Your task to perform on an android device: Open calendar and show me the second week of next month Image 0: 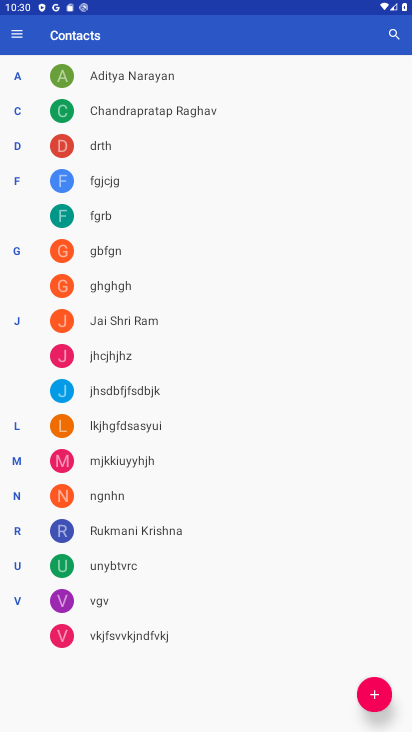
Step 0: press home button
Your task to perform on an android device: Open calendar and show me the second week of next month Image 1: 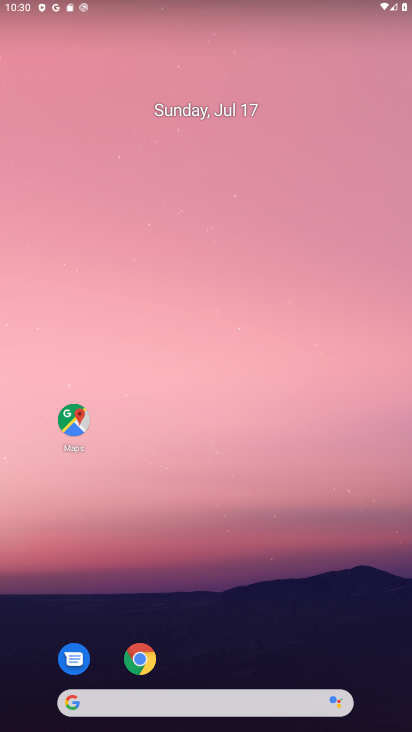
Step 1: drag from (255, 648) to (298, 155)
Your task to perform on an android device: Open calendar and show me the second week of next month Image 2: 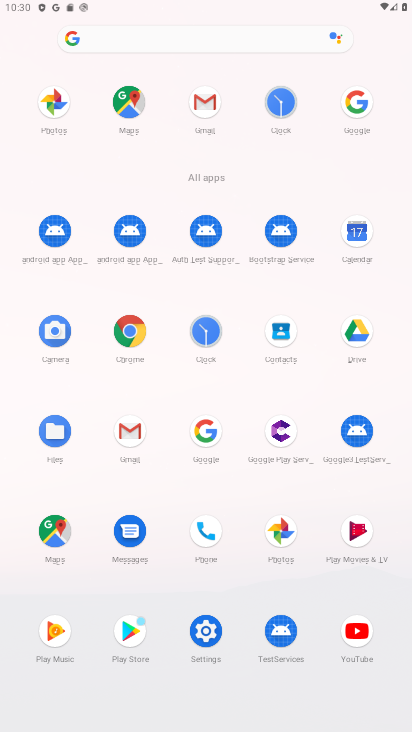
Step 2: click (339, 222)
Your task to perform on an android device: Open calendar and show me the second week of next month Image 3: 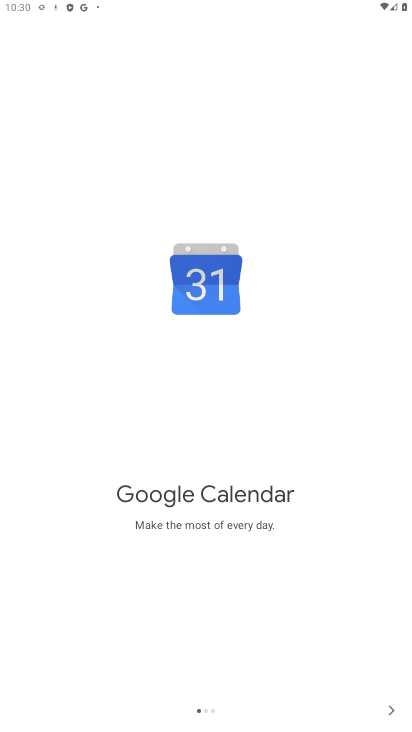
Step 3: click (395, 706)
Your task to perform on an android device: Open calendar and show me the second week of next month Image 4: 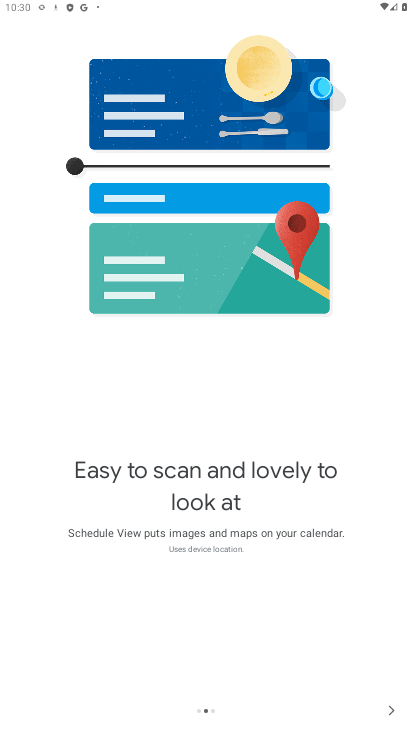
Step 4: click (395, 706)
Your task to perform on an android device: Open calendar and show me the second week of next month Image 5: 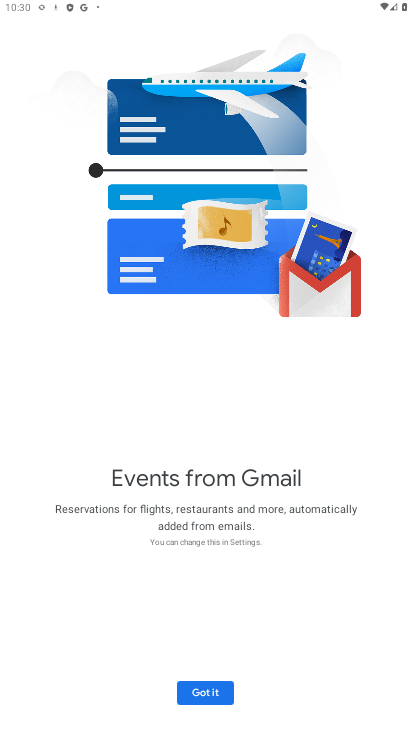
Step 5: click (213, 691)
Your task to perform on an android device: Open calendar and show me the second week of next month Image 6: 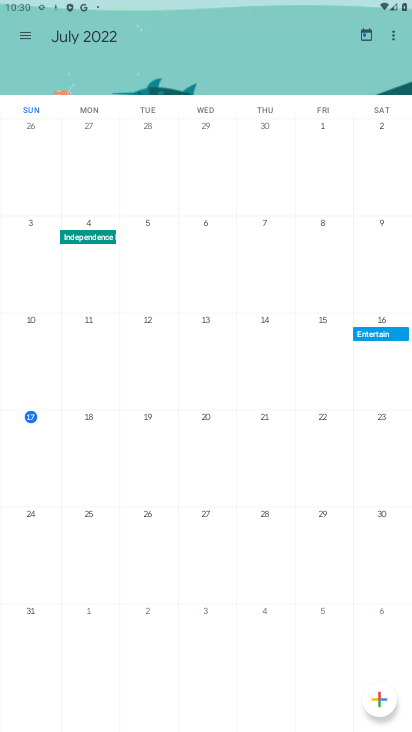
Step 6: click (83, 44)
Your task to perform on an android device: Open calendar and show me the second week of next month Image 7: 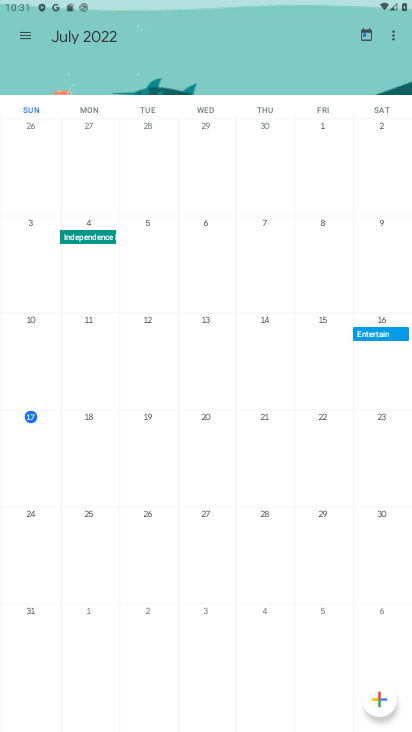
Step 7: click (25, 36)
Your task to perform on an android device: Open calendar and show me the second week of next month Image 8: 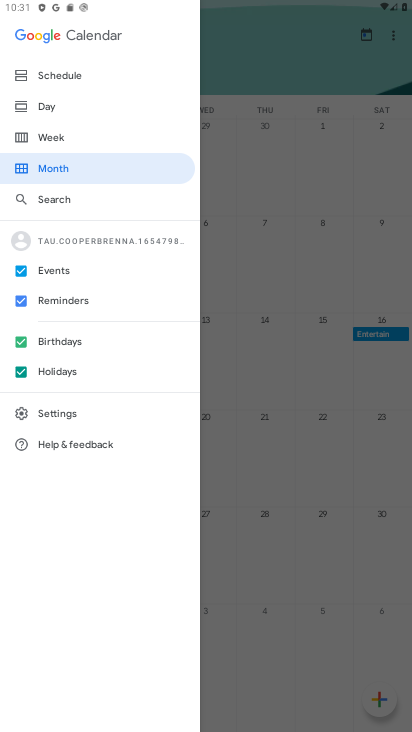
Step 8: click (304, 71)
Your task to perform on an android device: Open calendar and show me the second week of next month Image 9: 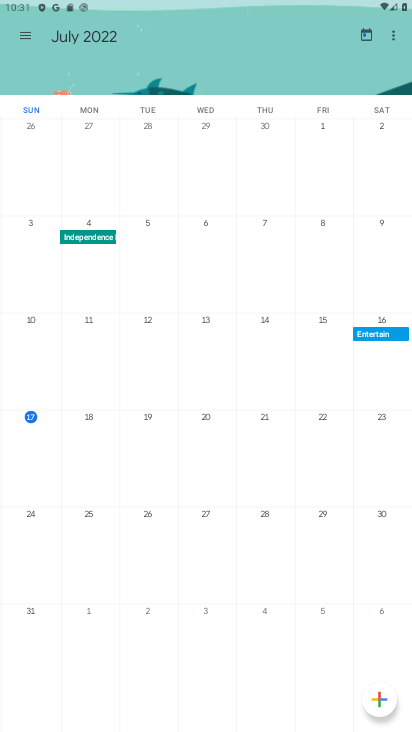
Step 9: click (111, 32)
Your task to perform on an android device: Open calendar and show me the second week of next month Image 10: 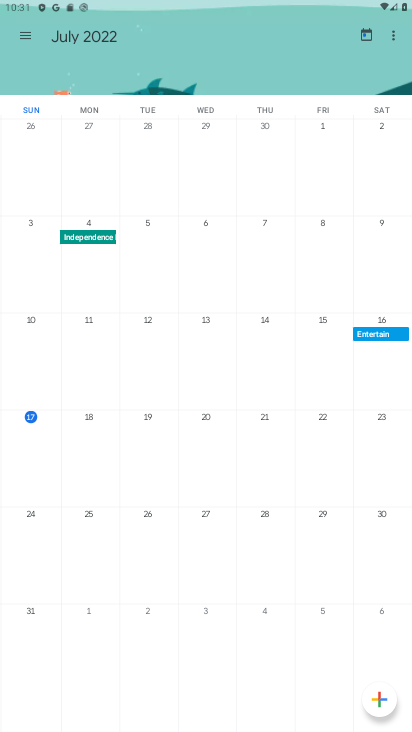
Step 10: click (123, 41)
Your task to perform on an android device: Open calendar and show me the second week of next month Image 11: 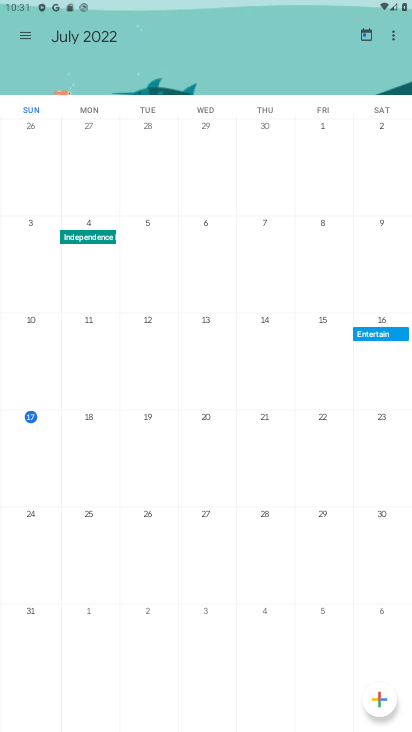
Step 11: click (81, 46)
Your task to perform on an android device: Open calendar and show me the second week of next month Image 12: 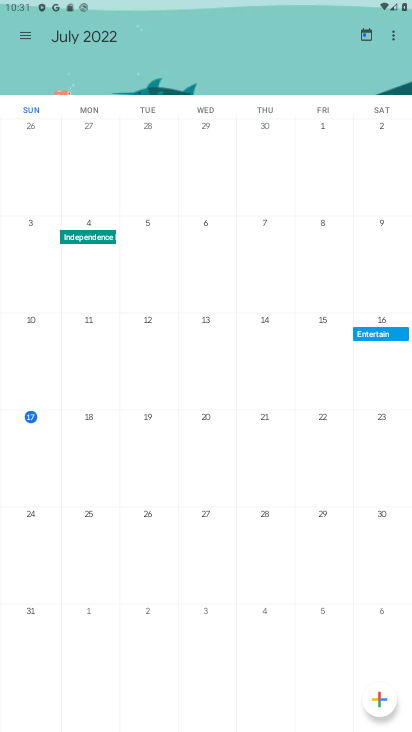
Step 12: click (81, 46)
Your task to perform on an android device: Open calendar and show me the second week of next month Image 13: 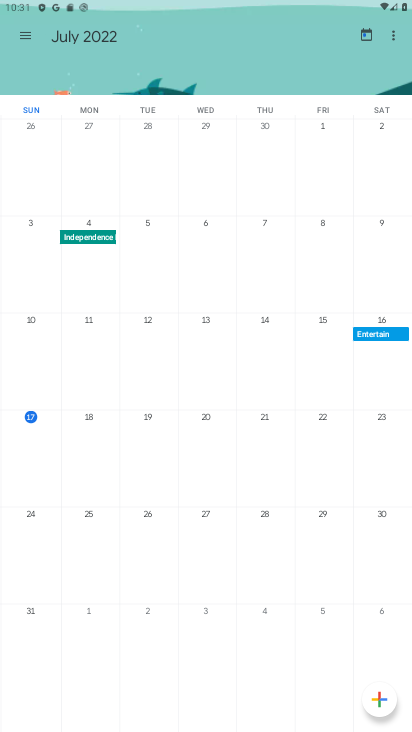
Step 13: click (103, 43)
Your task to perform on an android device: Open calendar and show me the second week of next month Image 14: 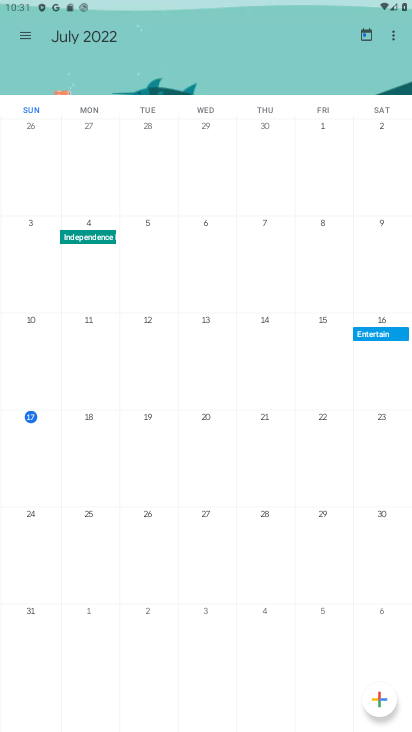
Step 14: click (196, 78)
Your task to perform on an android device: Open calendar and show me the second week of next month Image 15: 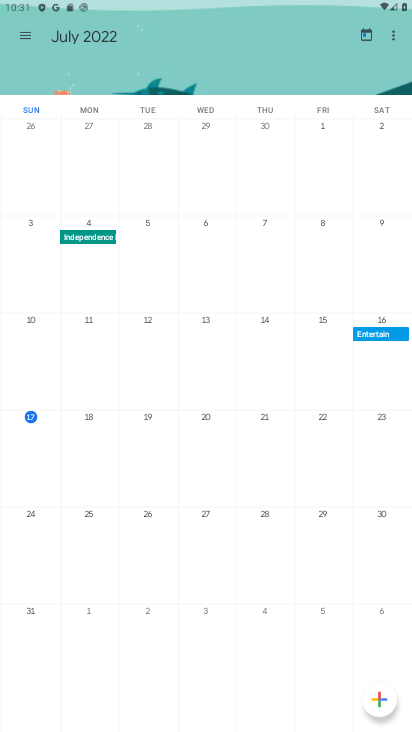
Step 15: click (33, 30)
Your task to perform on an android device: Open calendar and show me the second week of next month Image 16: 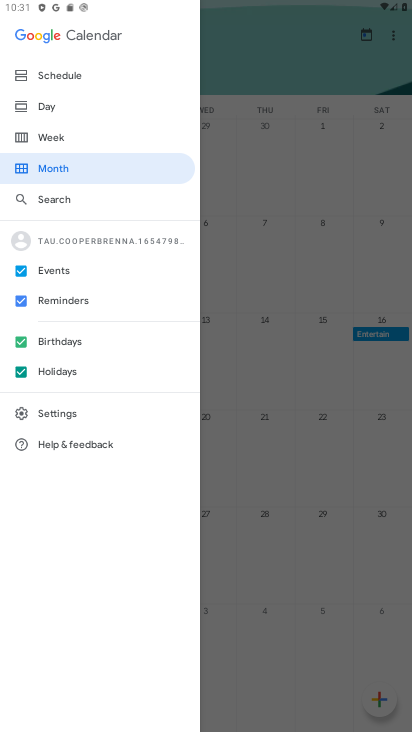
Step 16: click (36, 99)
Your task to perform on an android device: Open calendar and show me the second week of next month Image 17: 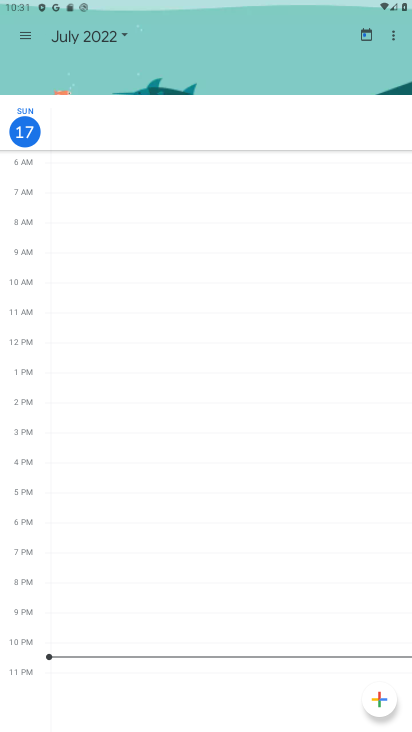
Step 17: click (110, 20)
Your task to perform on an android device: Open calendar and show me the second week of next month Image 18: 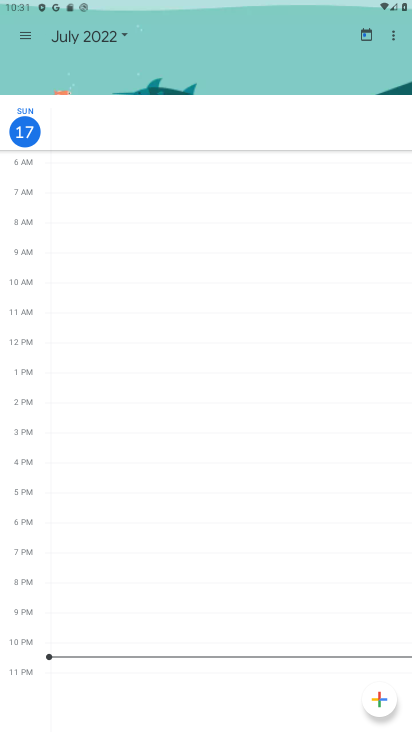
Step 18: click (110, 34)
Your task to perform on an android device: Open calendar and show me the second week of next month Image 19: 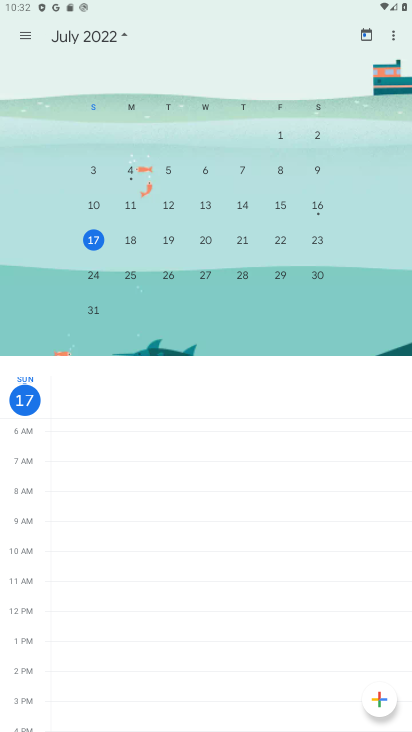
Step 19: drag from (354, 248) to (80, 272)
Your task to perform on an android device: Open calendar and show me the second week of next month Image 20: 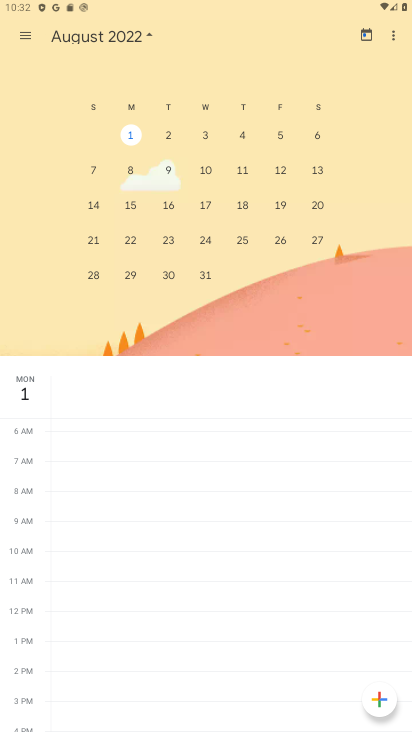
Step 20: click (137, 171)
Your task to perform on an android device: Open calendar and show me the second week of next month Image 21: 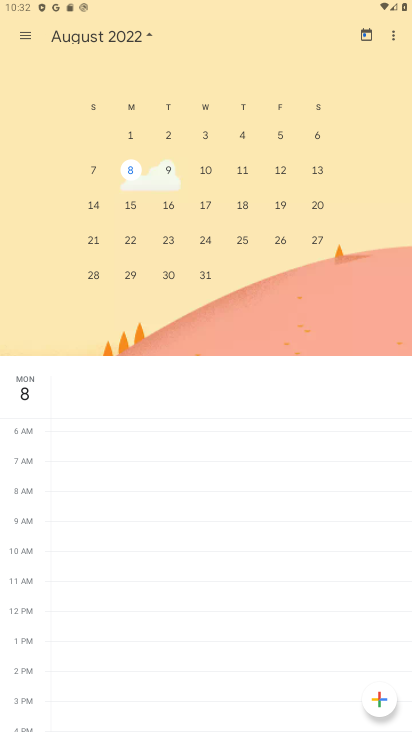
Step 21: task complete